Your task to perform on an android device: Go to Google Image 0: 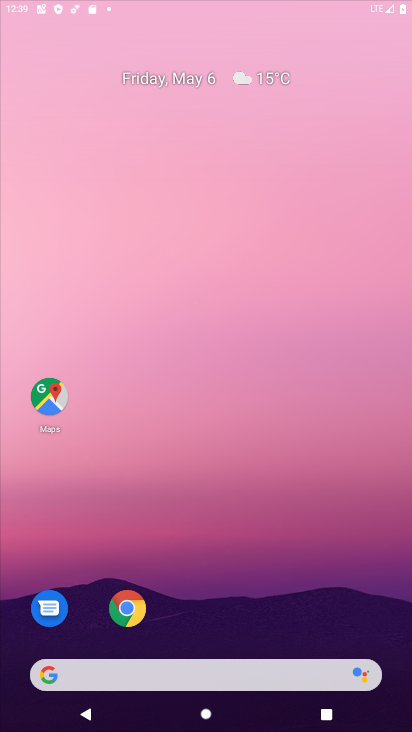
Step 0: drag from (218, 153) to (282, 78)
Your task to perform on an android device: Go to Google Image 1: 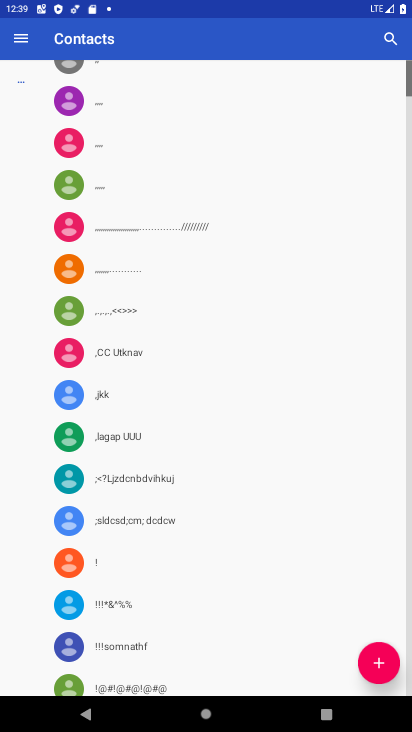
Step 1: drag from (221, 578) to (219, 123)
Your task to perform on an android device: Go to Google Image 2: 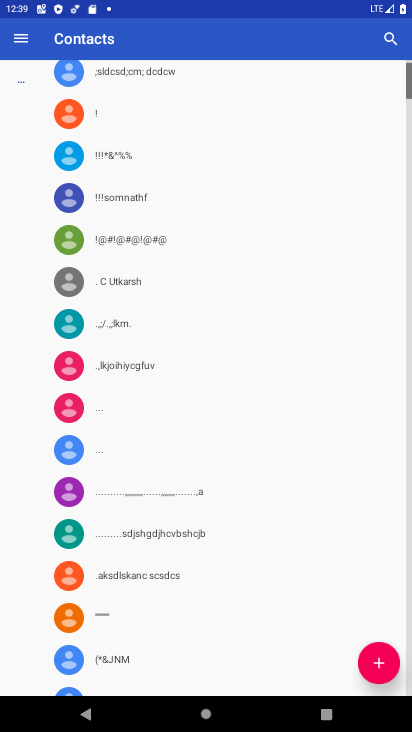
Step 2: press home button
Your task to perform on an android device: Go to Google Image 3: 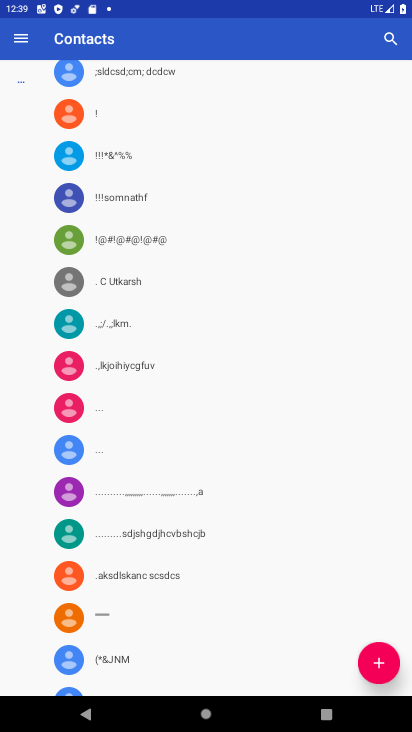
Step 3: press home button
Your task to perform on an android device: Go to Google Image 4: 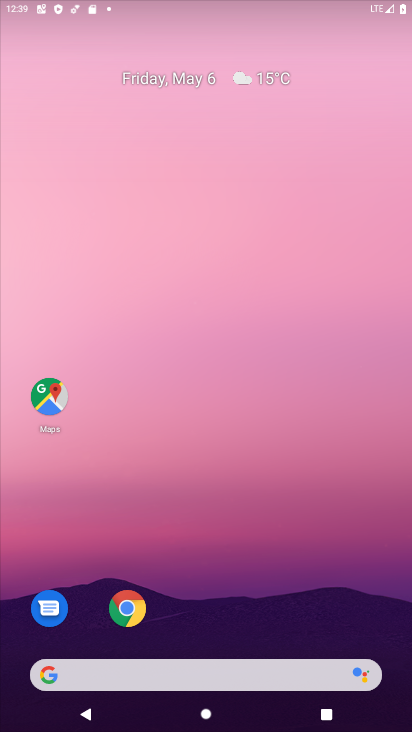
Step 4: drag from (184, 587) to (213, 95)
Your task to perform on an android device: Go to Google Image 5: 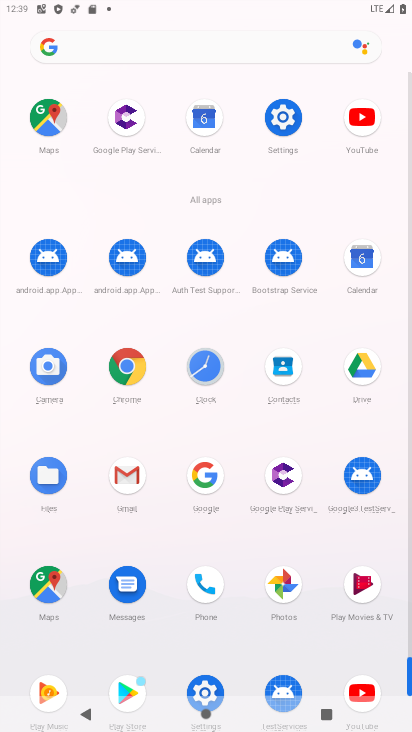
Step 5: click (198, 479)
Your task to perform on an android device: Go to Google Image 6: 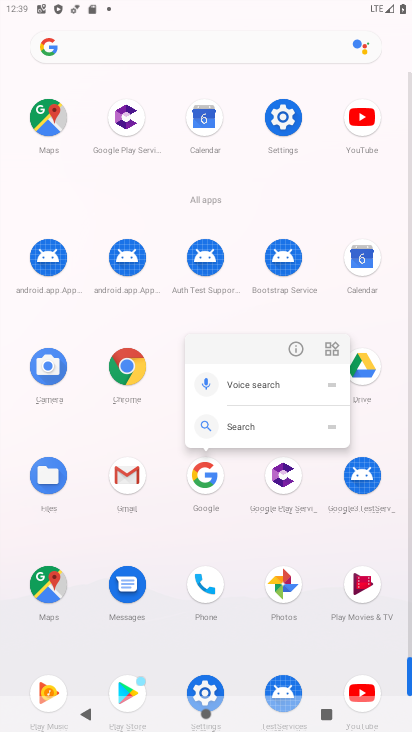
Step 6: click (294, 349)
Your task to perform on an android device: Go to Google Image 7: 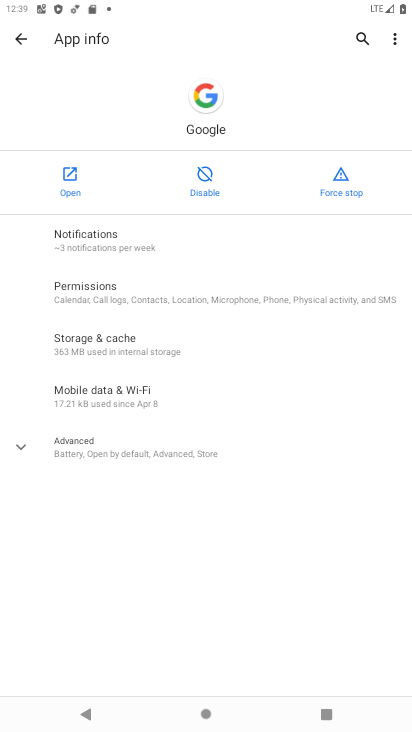
Step 7: click (64, 170)
Your task to perform on an android device: Go to Google Image 8: 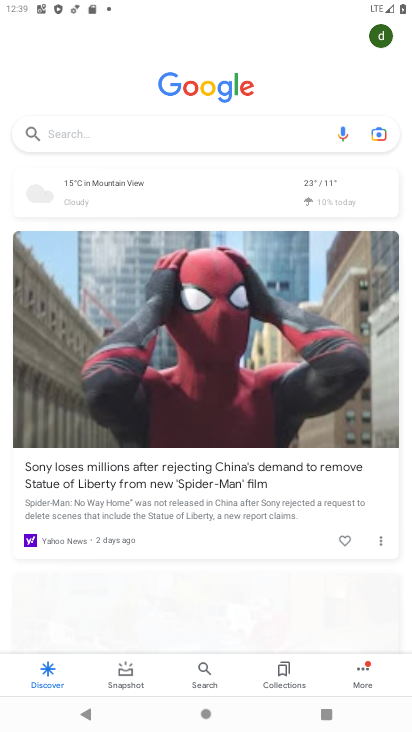
Step 8: task complete